Your task to perform on an android device: allow notifications from all sites in the chrome app Image 0: 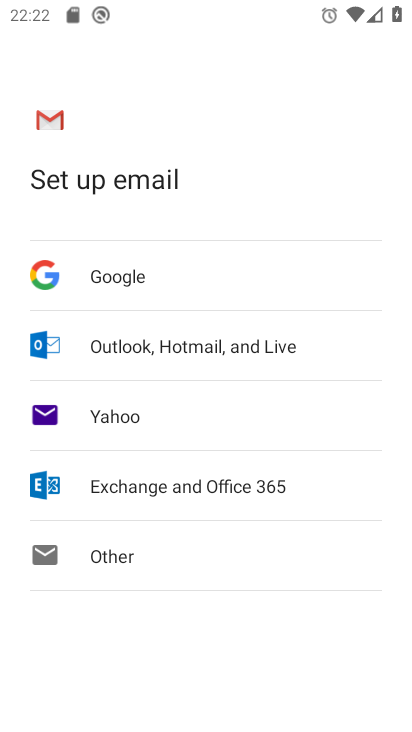
Step 0: press home button
Your task to perform on an android device: allow notifications from all sites in the chrome app Image 1: 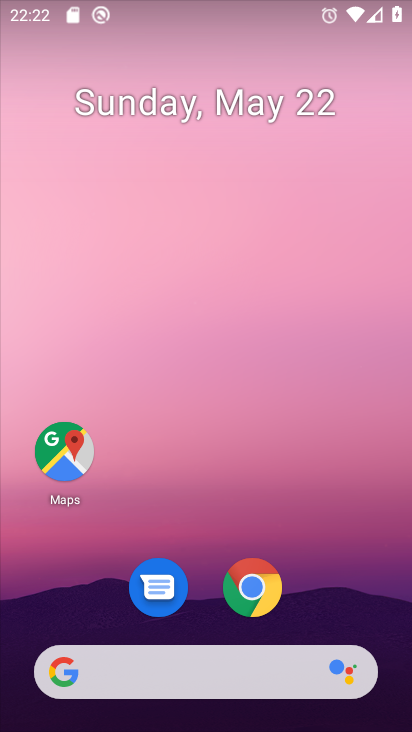
Step 1: click (257, 588)
Your task to perform on an android device: allow notifications from all sites in the chrome app Image 2: 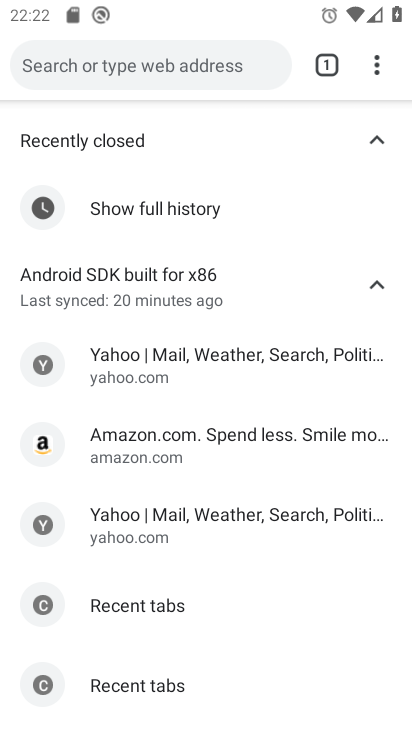
Step 2: click (375, 68)
Your task to perform on an android device: allow notifications from all sites in the chrome app Image 3: 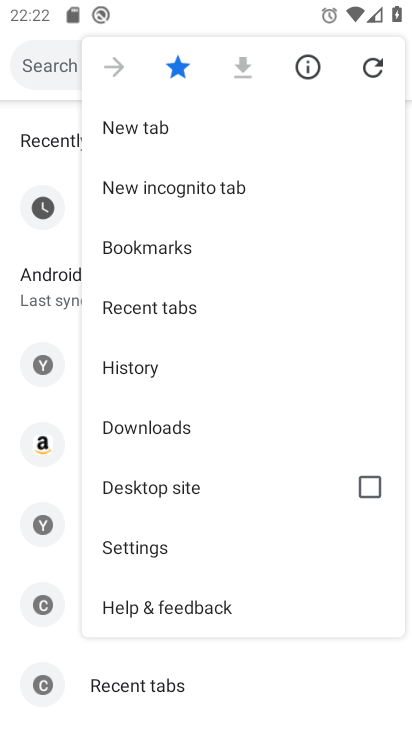
Step 3: click (184, 542)
Your task to perform on an android device: allow notifications from all sites in the chrome app Image 4: 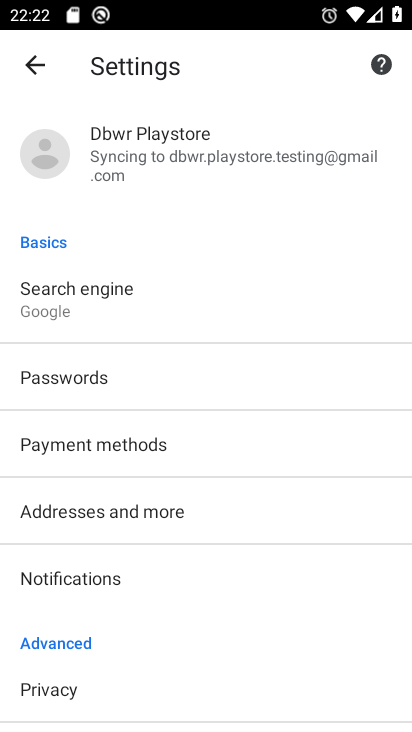
Step 4: click (184, 570)
Your task to perform on an android device: allow notifications from all sites in the chrome app Image 5: 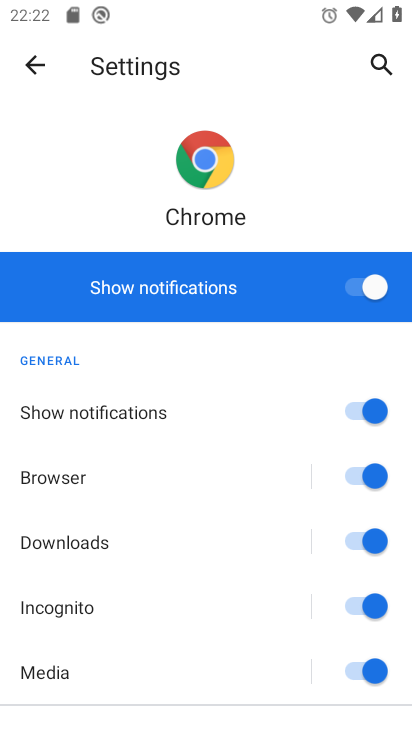
Step 5: task complete